Your task to perform on an android device: toggle priority inbox in the gmail app Image 0: 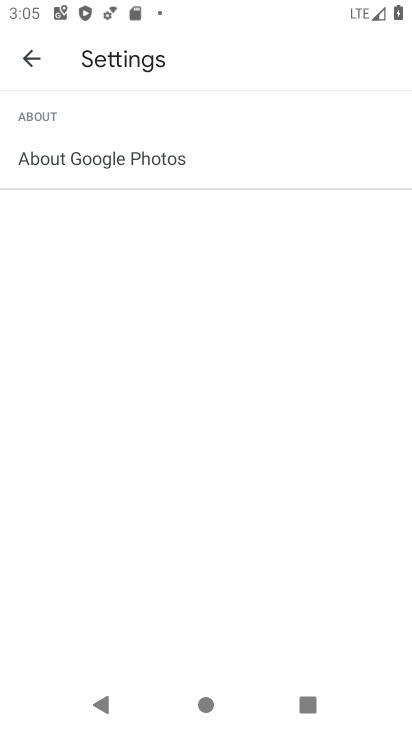
Step 0: press home button
Your task to perform on an android device: toggle priority inbox in the gmail app Image 1: 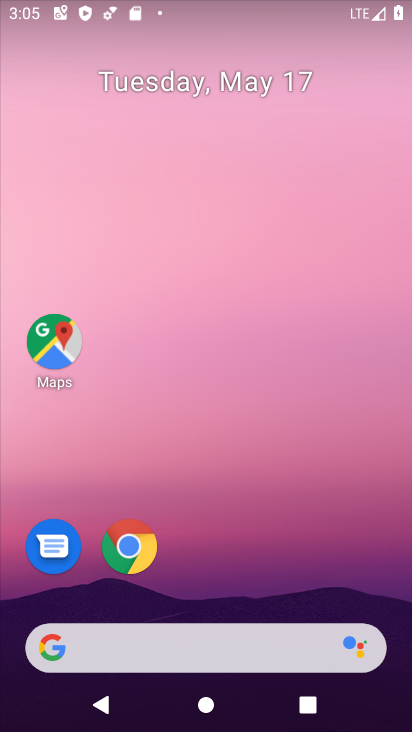
Step 1: drag from (271, 541) to (265, 56)
Your task to perform on an android device: toggle priority inbox in the gmail app Image 2: 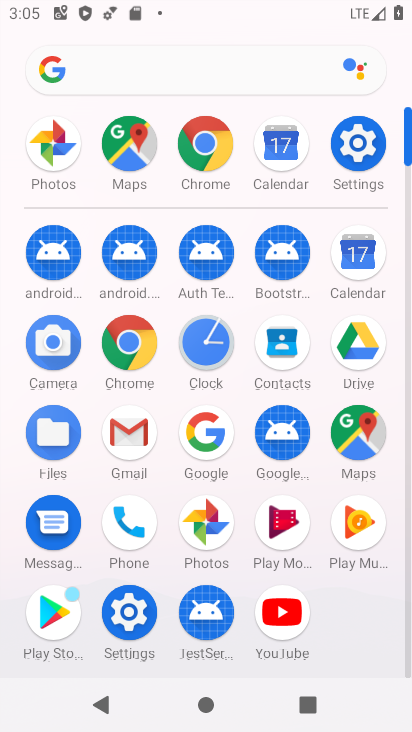
Step 2: click (120, 441)
Your task to perform on an android device: toggle priority inbox in the gmail app Image 3: 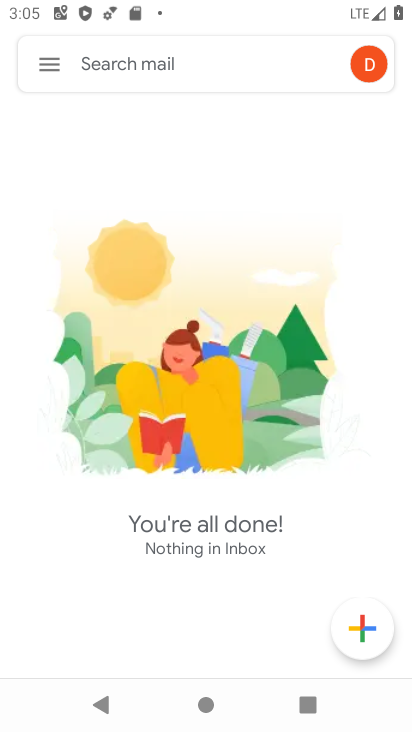
Step 3: click (45, 58)
Your task to perform on an android device: toggle priority inbox in the gmail app Image 4: 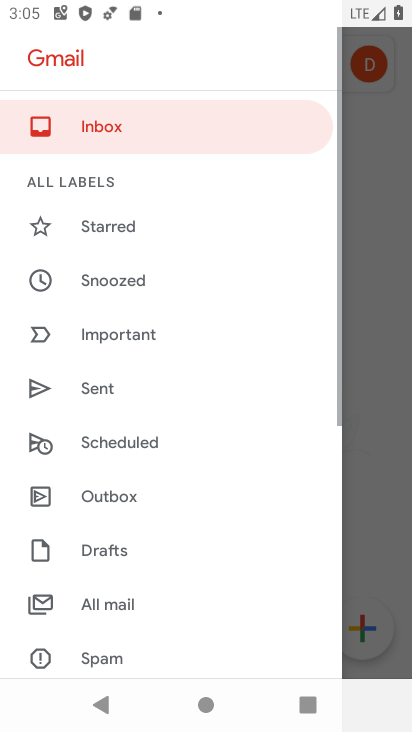
Step 4: drag from (173, 528) to (152, 68)
Your task to perform on an android device: toggle priority inbox in the gmail app Image 5: 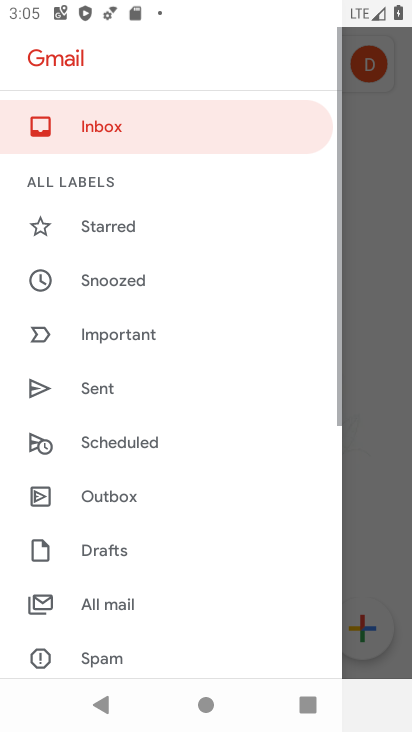
Step 5: drag from (116, 602) to (218, 12)
Your task to perform on an android device: toggle priority inbox in the gmail app Image 6: 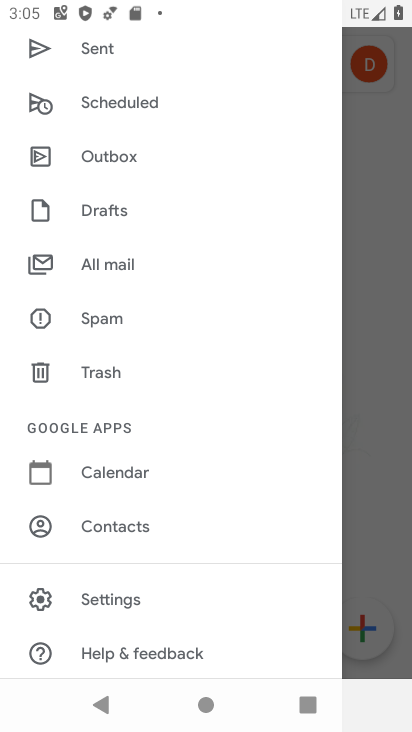
Step 6: click (125, 593)
Your task to perform on an android device: toggle priority inbox in the gmail app Image 7: 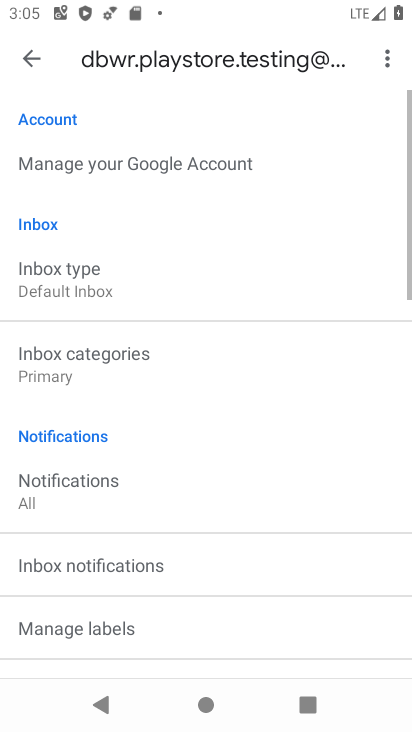
Step 7: click (116, 289)
Your task to perform on an android device: toggle priority inbox in the gmail app Image 8: 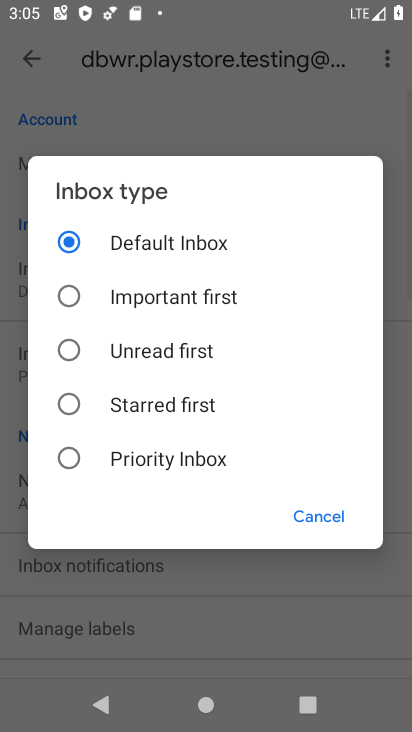
Step 8: click (145, 458)
Your task to perform on an android device: toggle priority inbox in the gmail app Image 9: 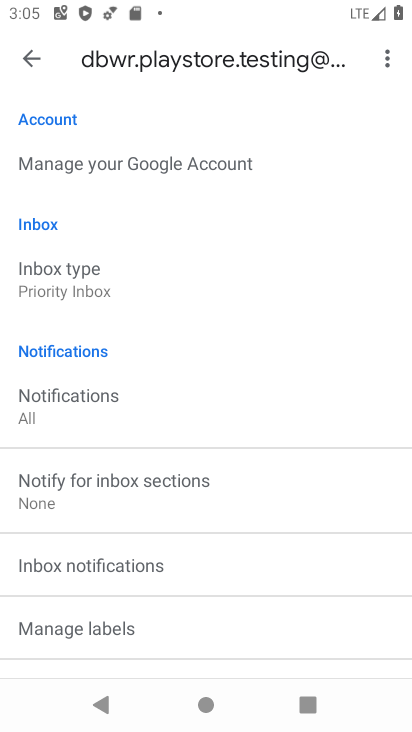
Step 9: task complete